Your task to perform on an android device: Open location settings Image 0: 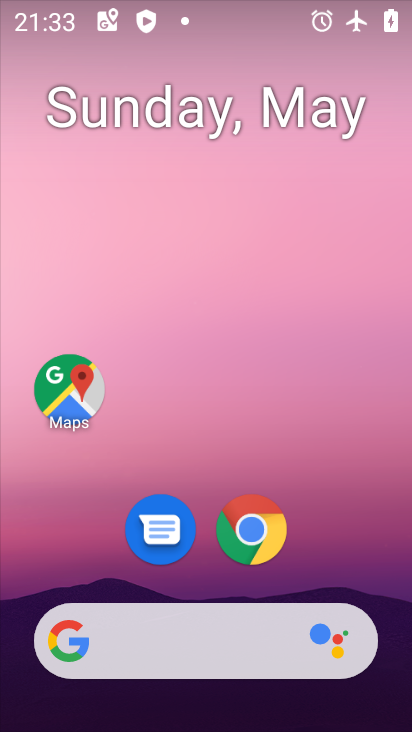
Step 0: drag from (391, 588) to (291, 9)
Your task to perform on an android device: Open location settings Image 1: 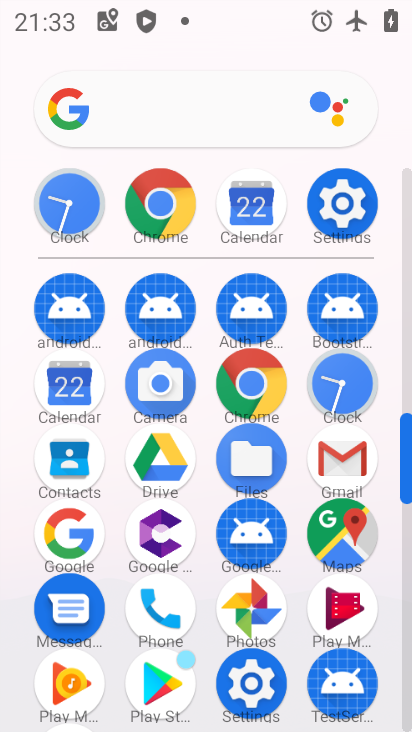
Step 1: click (344, 186)
Your task to perform on an android device: Open location settings Image 2: 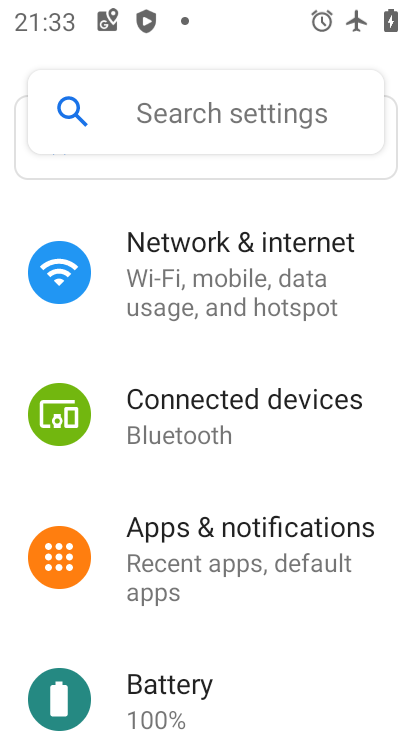
Step 2: drag from (283, 515) to (233, 63)
Your task to perform on an android device: Open location settings Image 3: 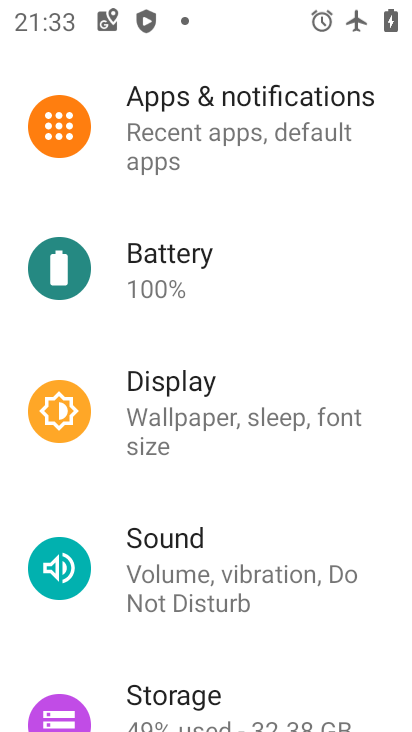
Step 3: drag from (217, 564) to (208, 190)
Your task to perform on an android device: Open location settings Image 4: 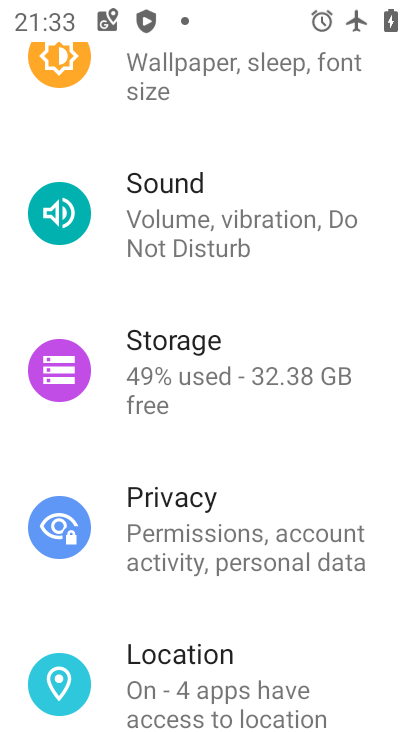
Step 4: click (216, 660)
Your task to perform on an android device: Open location settings Image 5: 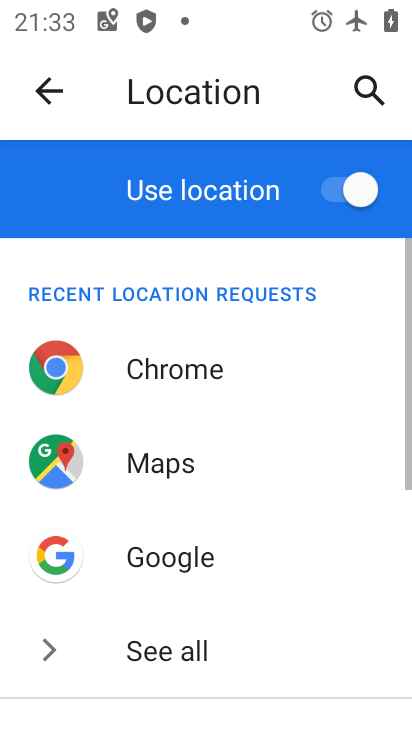
Step 5: task complete